Your task to perform on an android device: What is the news today? Image 0: 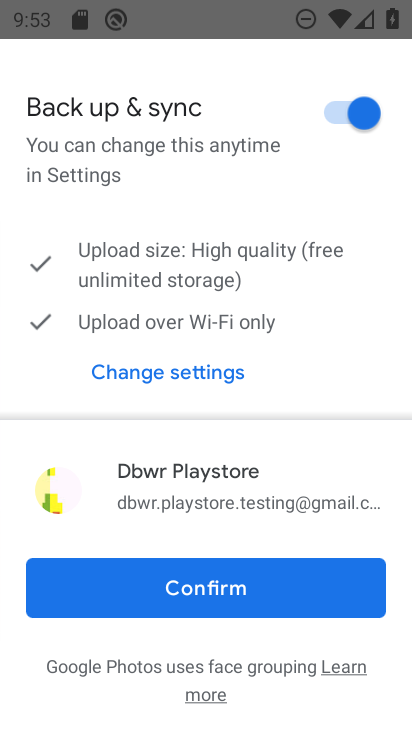
Step 0: press home button
Your task to perform on an android device: What is the news today? Image 1: 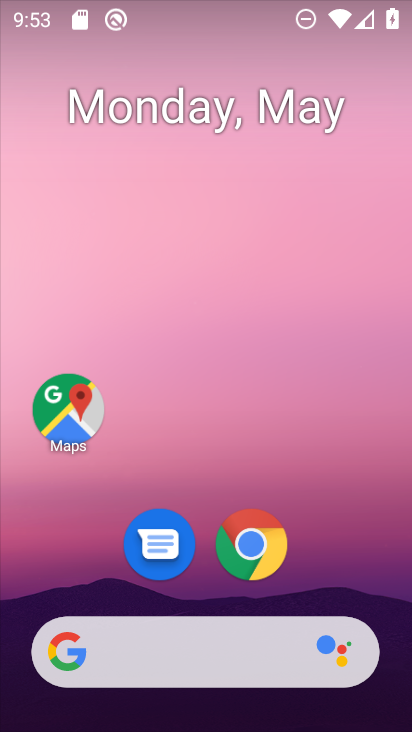
Step 1: click (244, 572)
Your task to perform on an android device: What is the news today? Image 2: 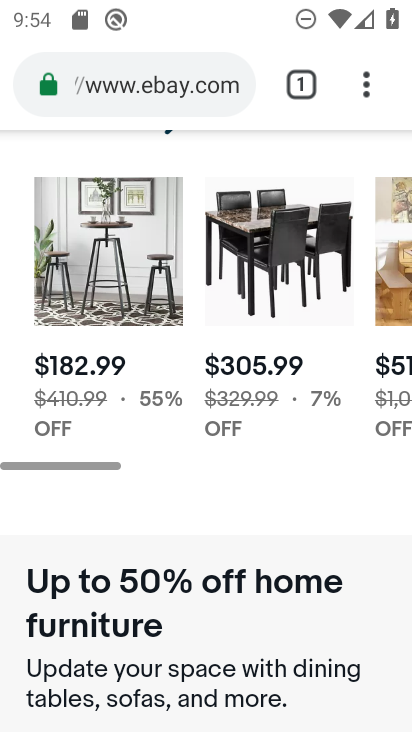
Step 2: click (304, 91)
Your task to perform on an android device: What is the news today? Image 3: 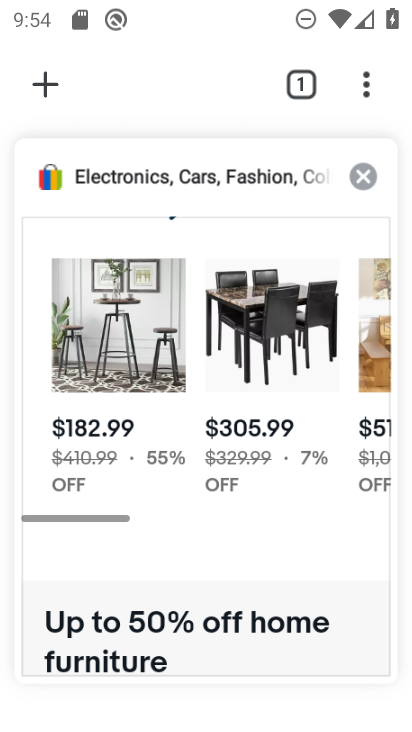
Step 3: click (46, 90)
Your task to perform on an android device: What is the news today? Image 4: 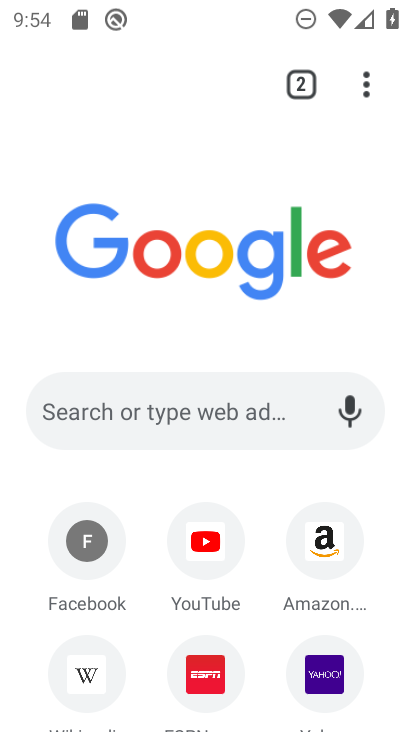
Step 4: click (116, 420)
Your task to perform on an android device: What is the news today? Image 5: 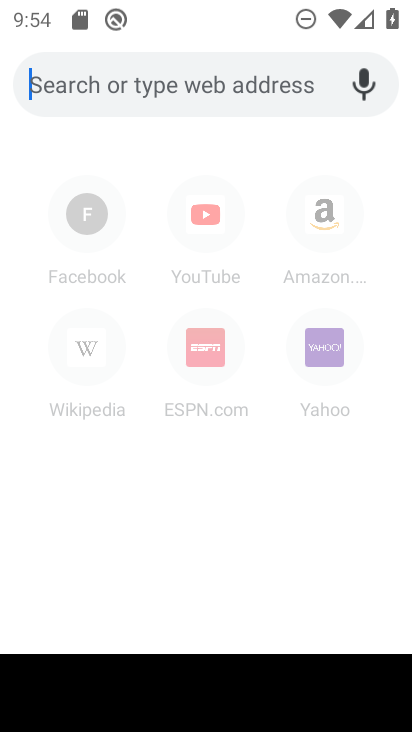
Step 5: type "what is the news today?"
Your task to perform on an android device: What is the news today? Image 6: 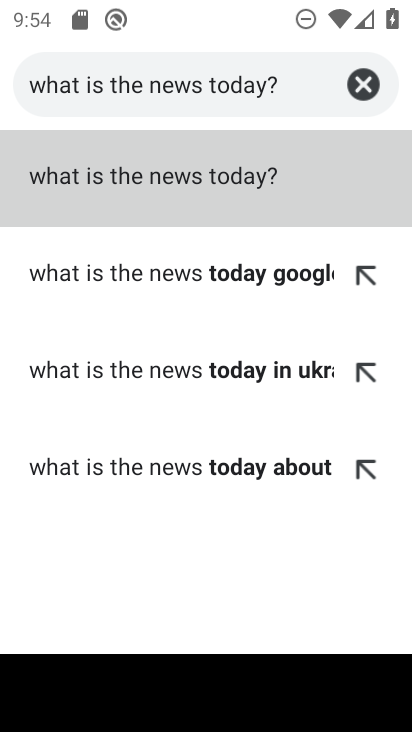
Step 6: click (166, 192)
Your task to perform on an android device: What is the news today? Image 7: 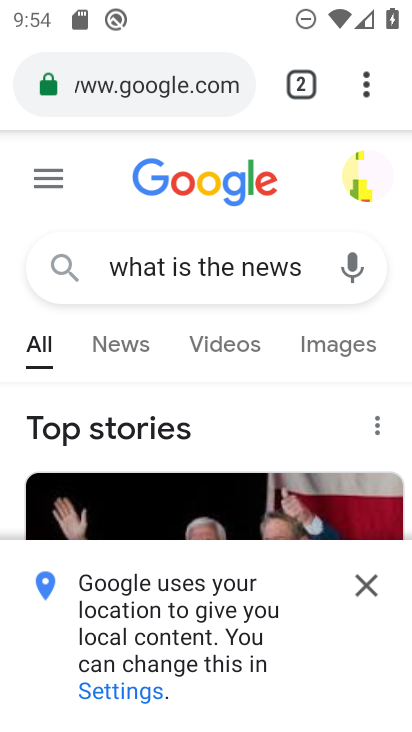
Step 7: click (371, 588)
Your task to perform on an android device: What is the news today? Image 8: 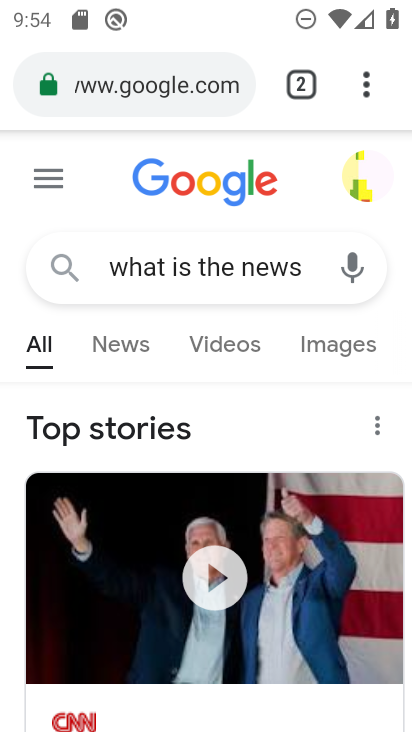
Step 8: drag from (266, 633) to (247, 380)
Your task to perform on an android device: What is the news today? Image 9: 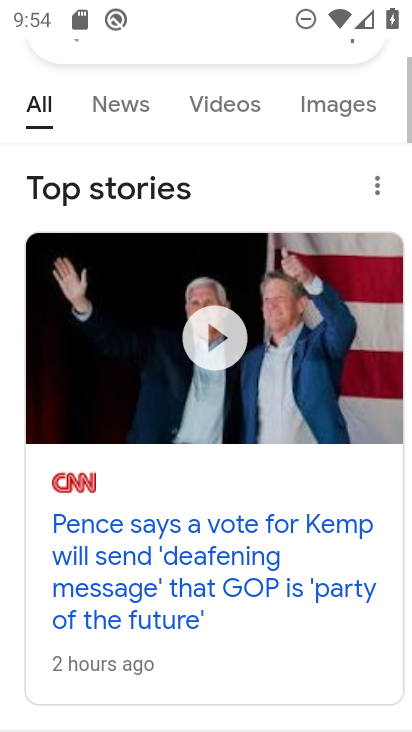
Step 9: click (244, 371)
Your task to perform on an android device: What is the news today? Image 10: 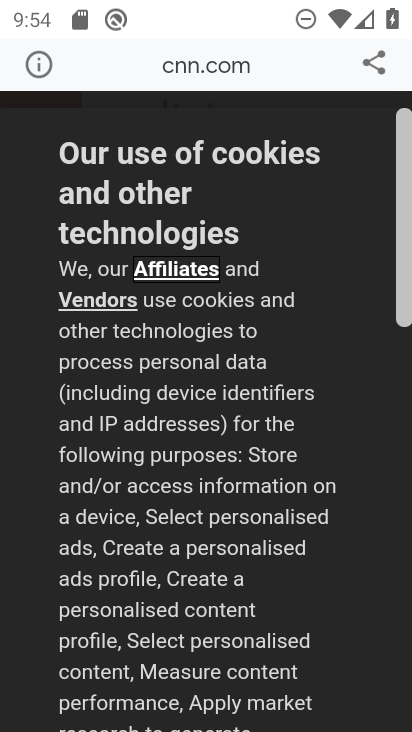
Step 10: press back button
Your task to perform on an android device: What is the news today? Image 11: 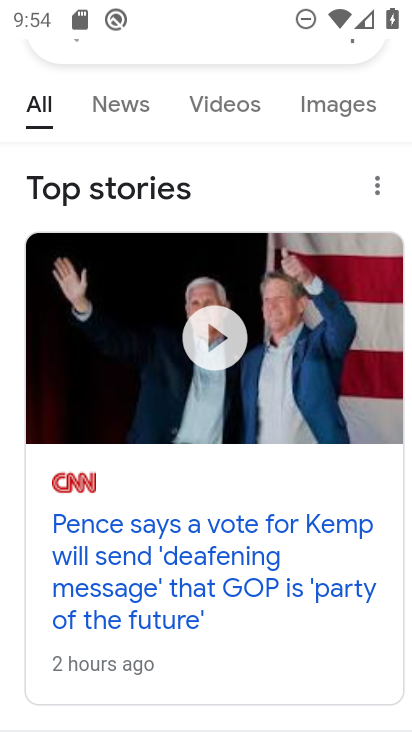
Step 11: click (126, 117)
Your task to perform on an android device: What is the news today? Image 12: 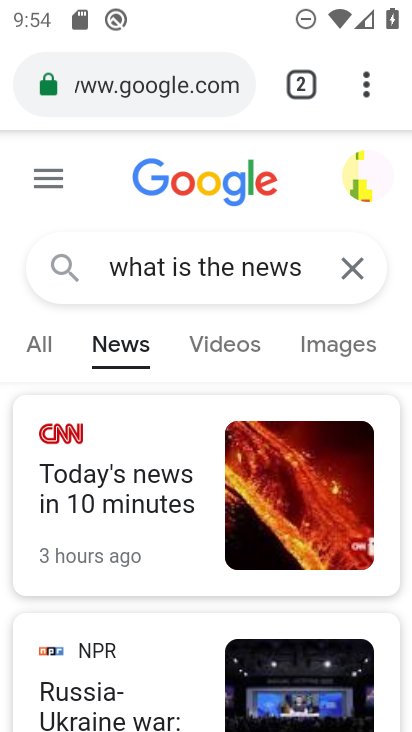
Step 12: task complete